Your task to perform on an android device: open app "Google Translate" Image 0: 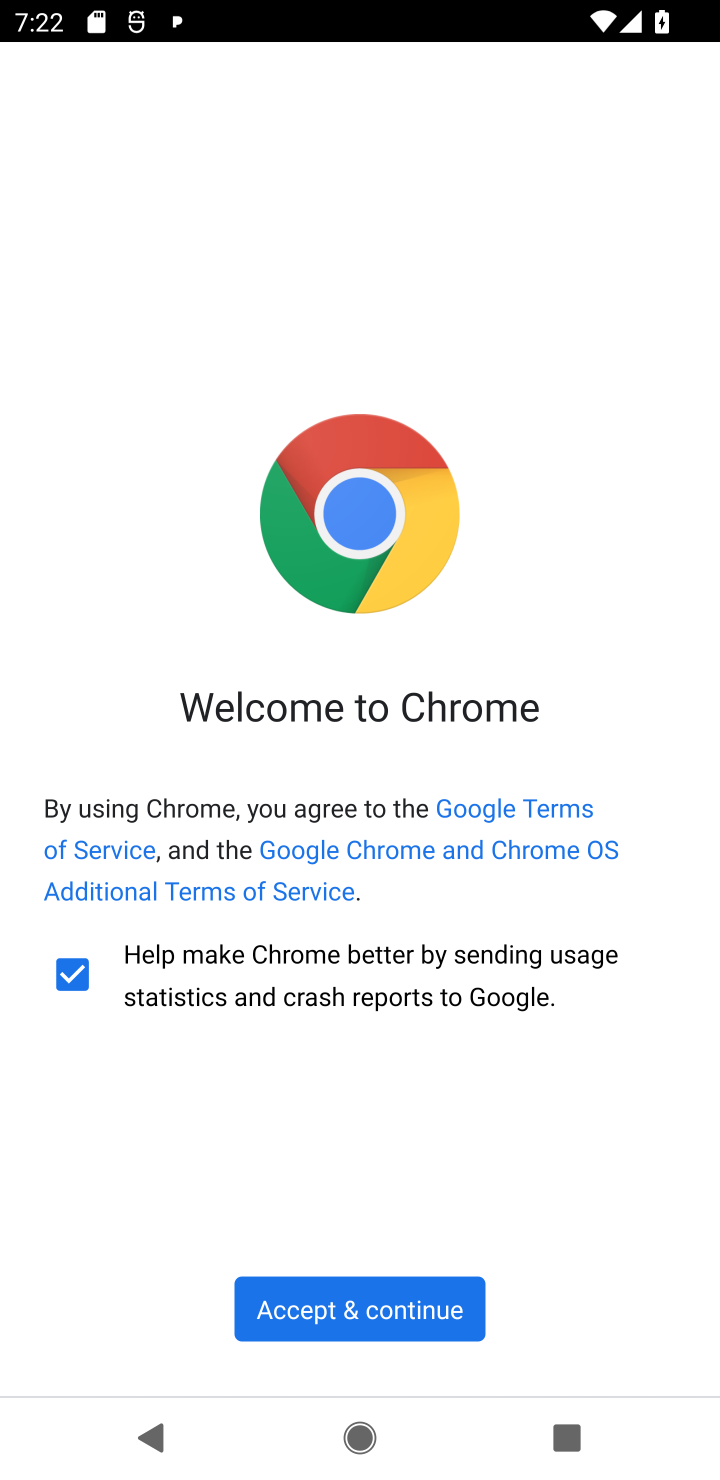
Step 0: press home button
Your task to perform on an android device: open app "Google Translate" Image 1: 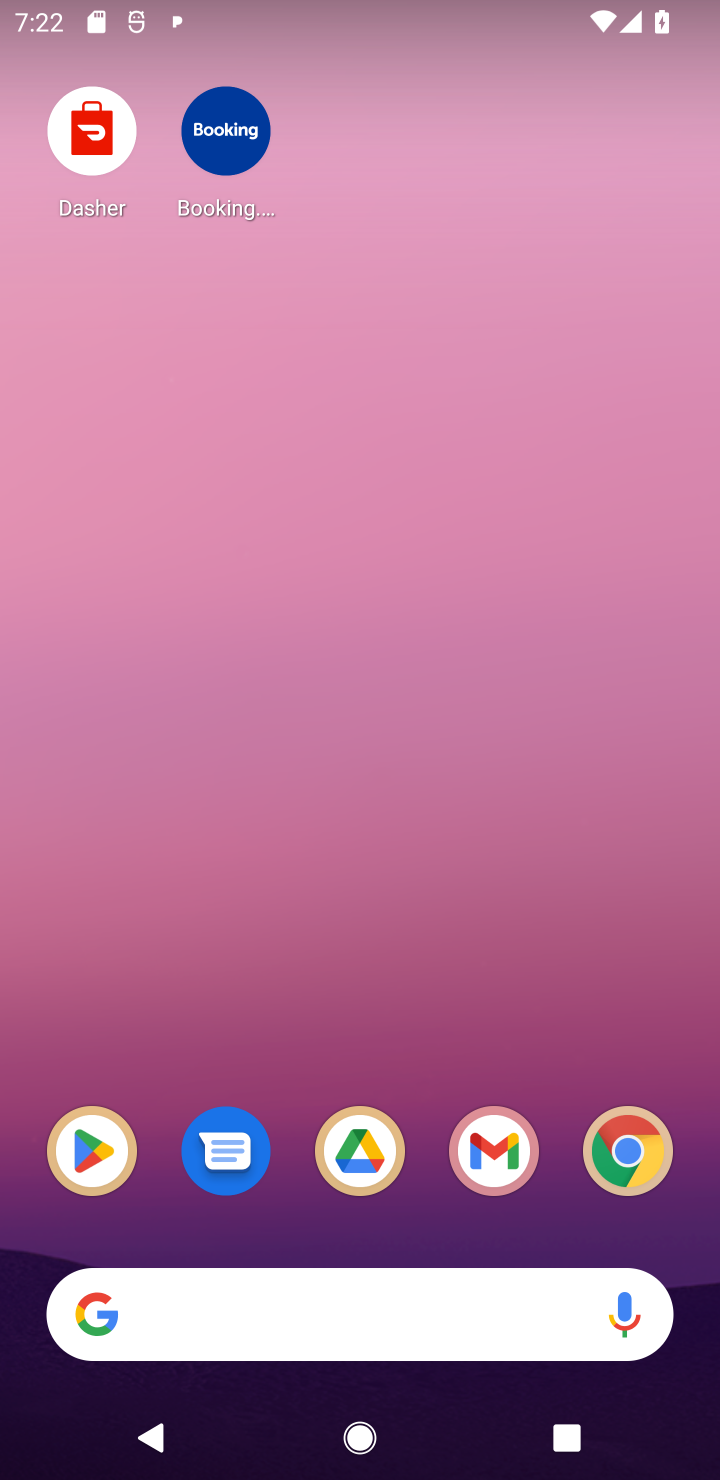
Step 1: click (102, 1153)
Your task to perform on an android device: open app "Google Translate" Image 2: 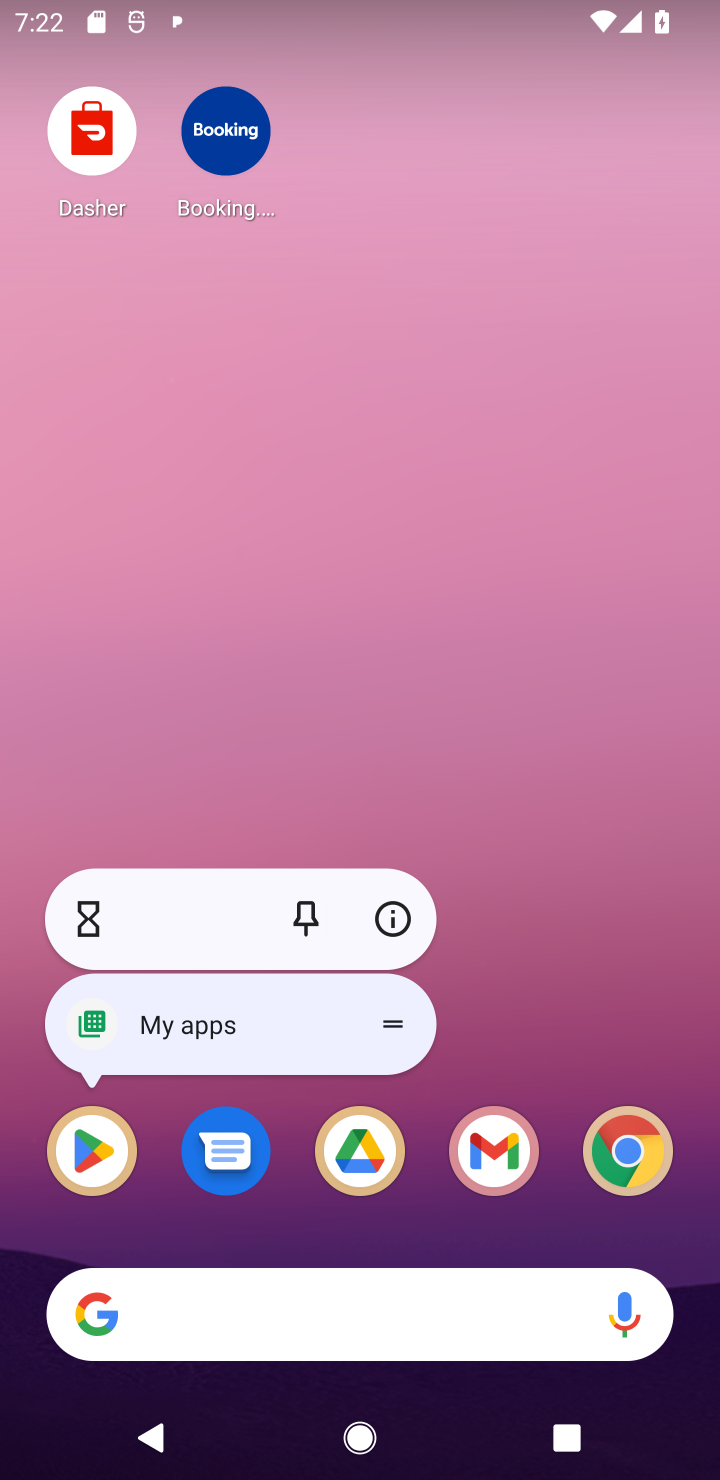
Step 2: click (102, 1153)
Your task to perform on an android device: open app "Google Translate" Image 3: 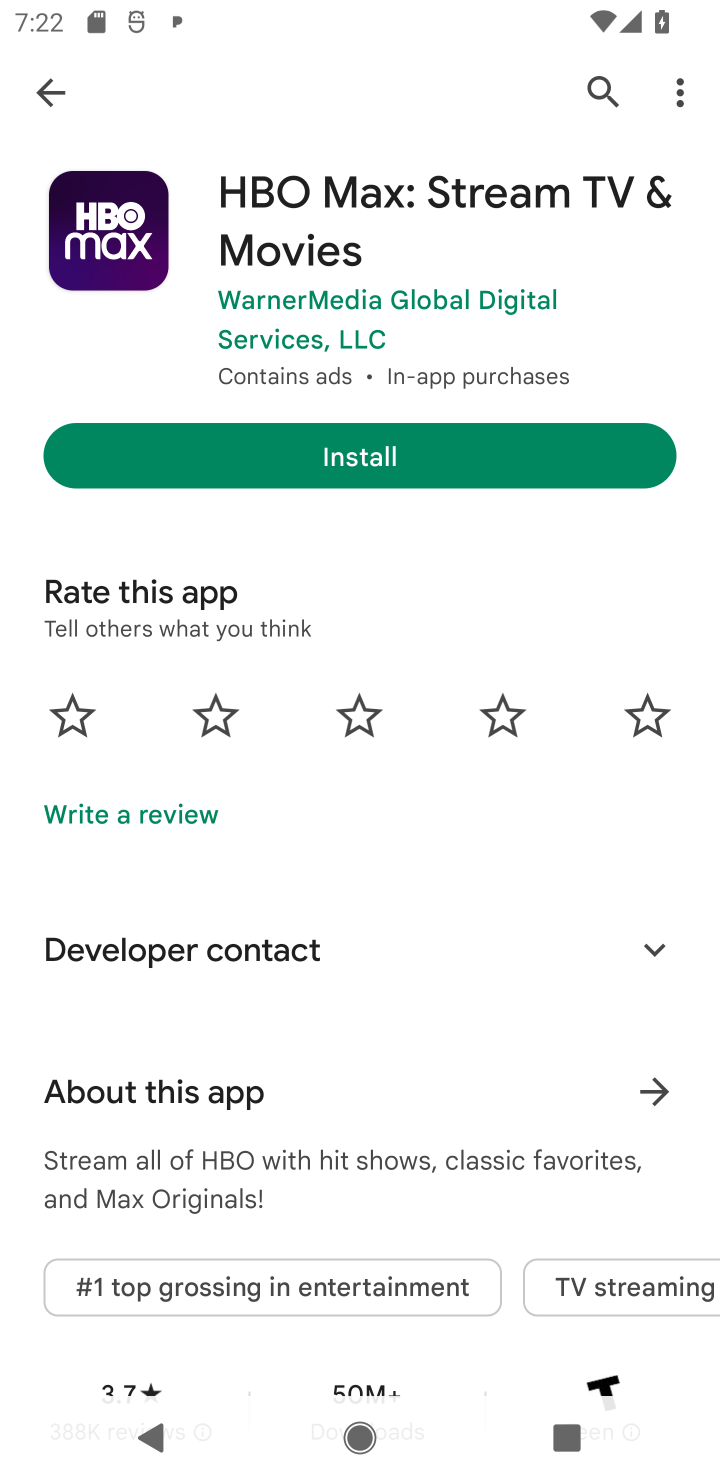
Step 3: click (606, 84)
Your task to perform on an android device: open app "Google Translate" Image 4: 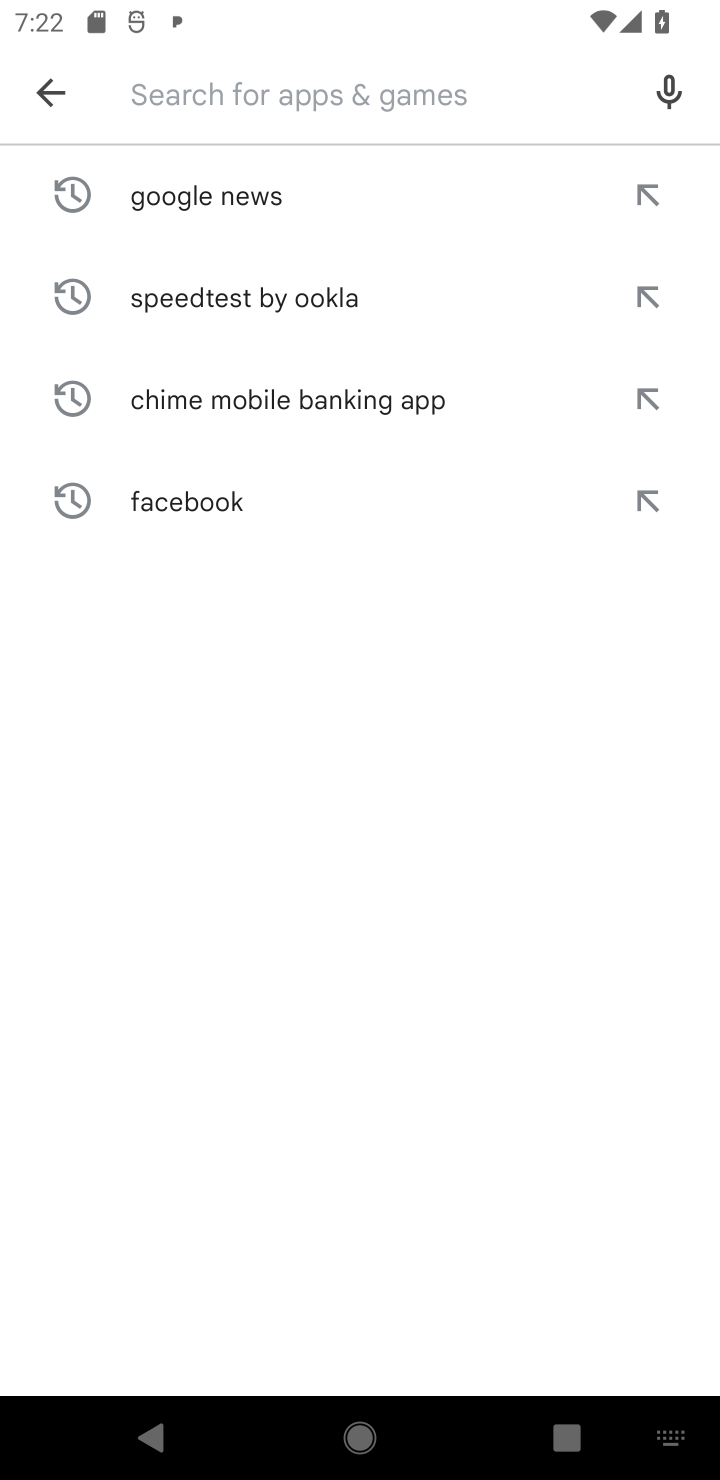
Step 4: type "Google Translate"
Your task to perform on an android device: open app "Google Translate" Image 5: 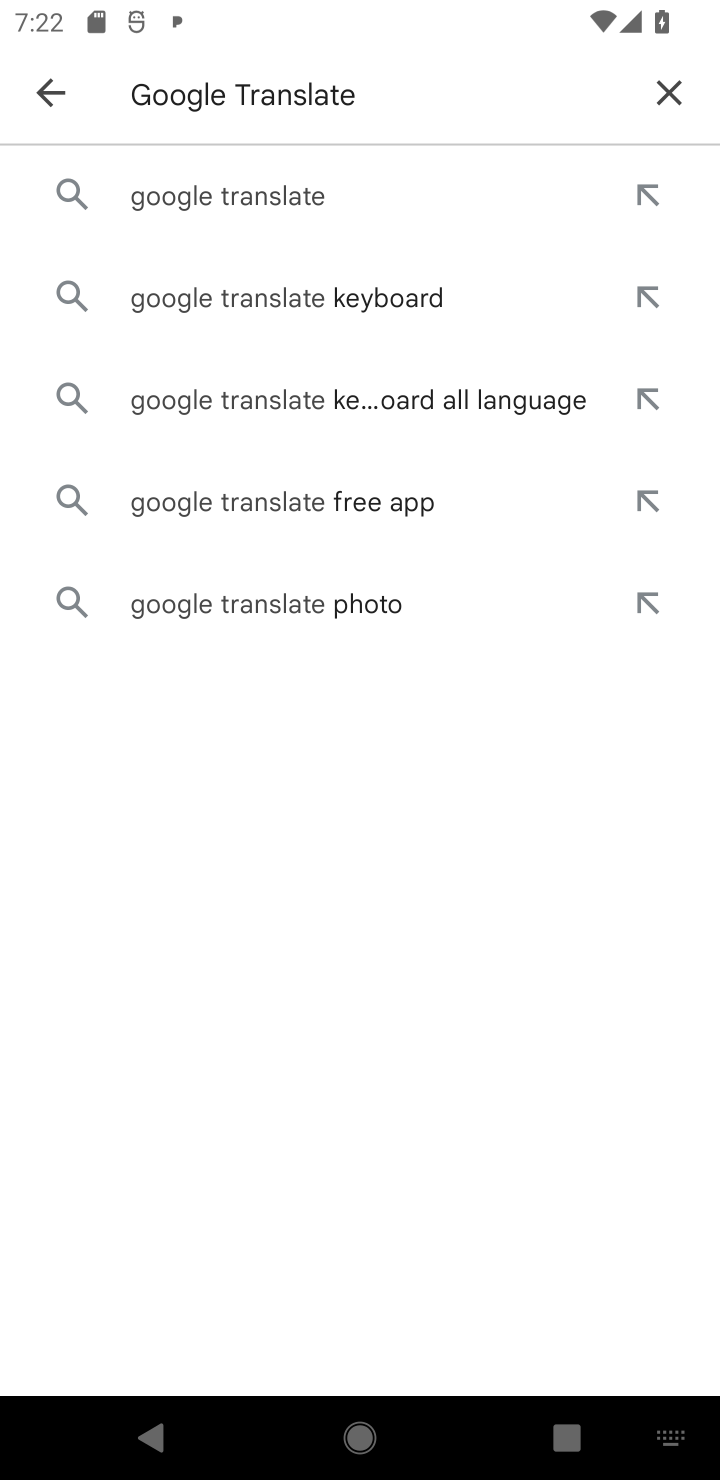
Step 5: click (284, 198)
Your task to perform on an android device: open app "Google Translate" Image 6: 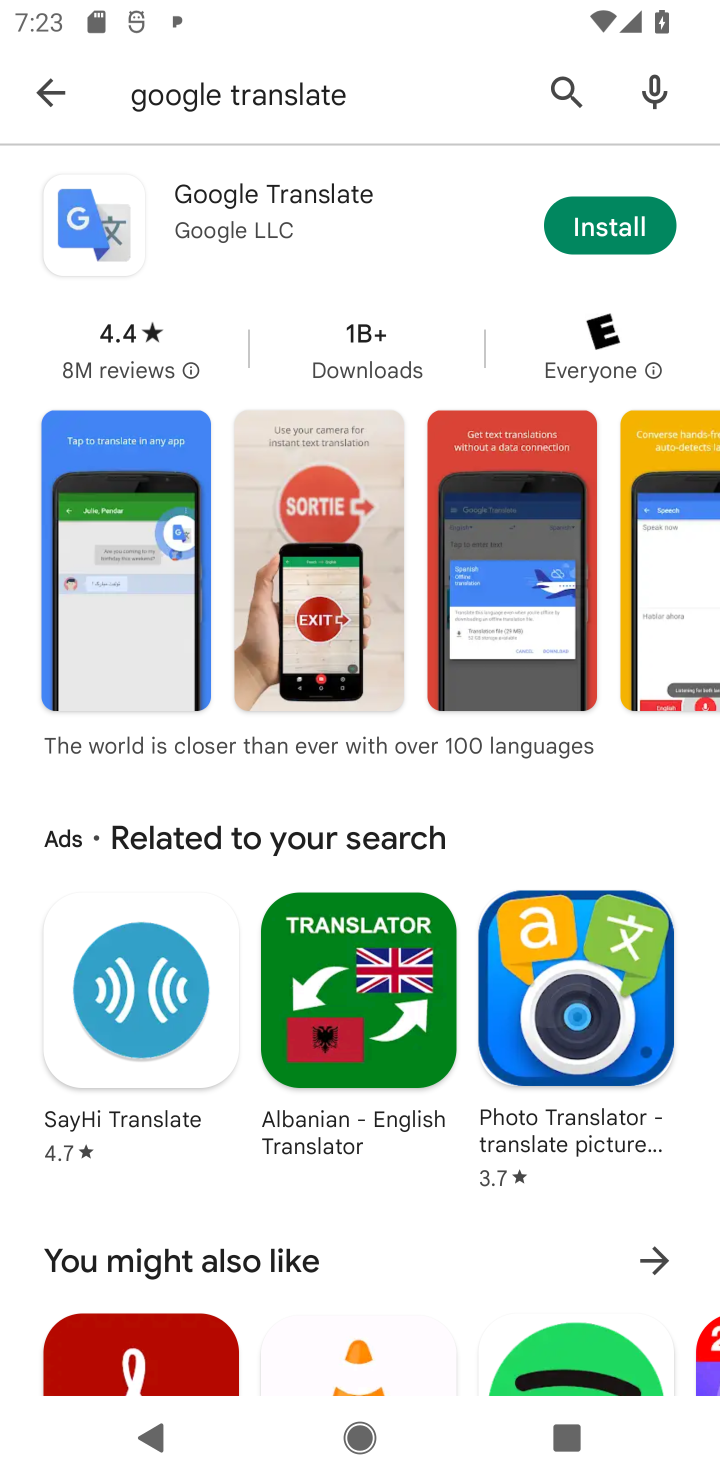
Step 6: task complete